Your task to perform on an android device: turn on location history Image 0: 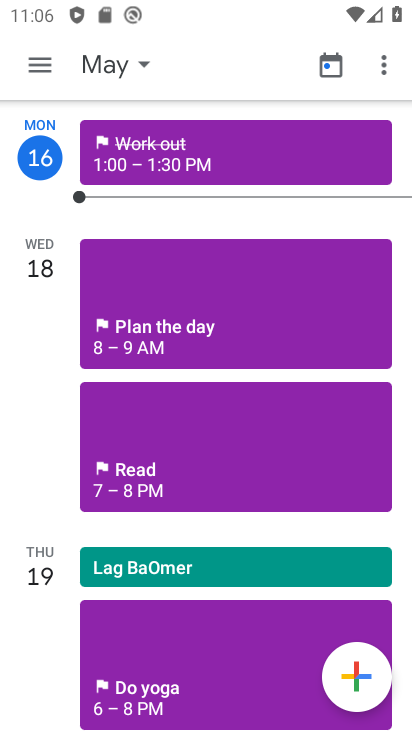
Step 0: drag from (327, 617) to (329, 580)
Your task to perform on an android device: turn on location history Image 1: 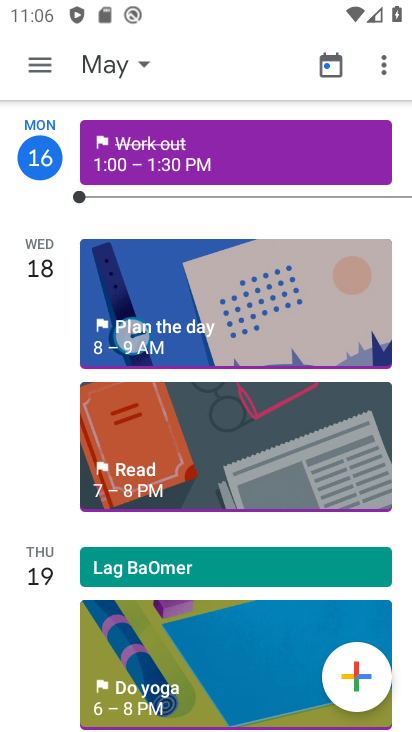
Step 1: press home button
Your task to perform on an android device: turn on location history Image 2: 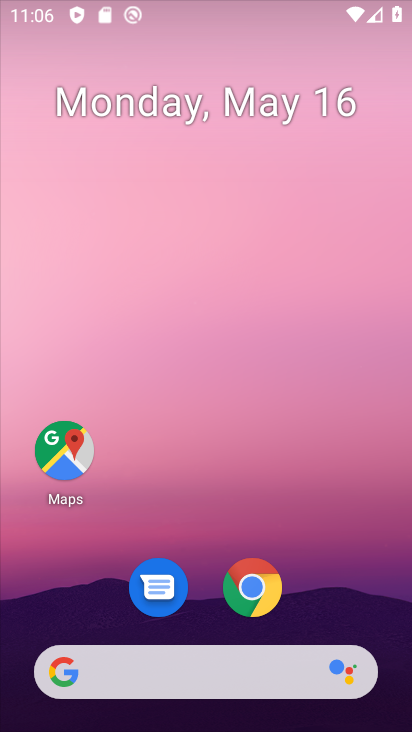
Step 2: drag from (251, 555) to (272, 264)
Your task to perform on an android device: turn on location history Image 3: 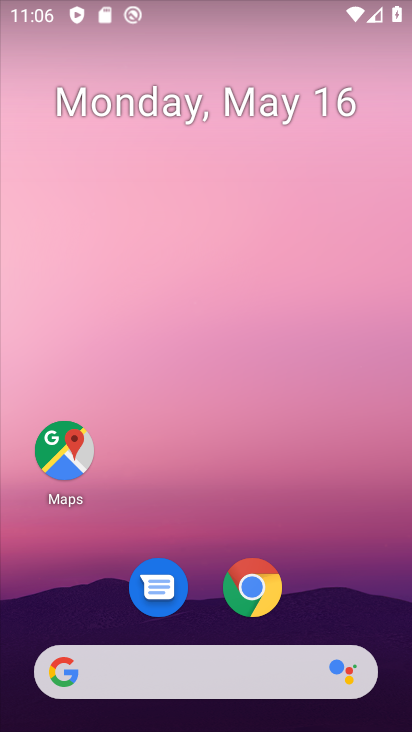
Step 3: drag from (175, 614) to (271, 214)
Your task to perform on an android device: turn on location history Image 4: 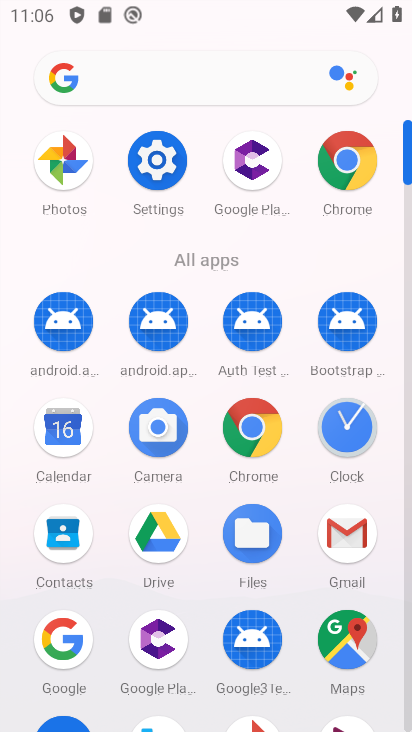
Step 4: click (151, 156)
Your task to perform on an android device: turn on location history Image 5: 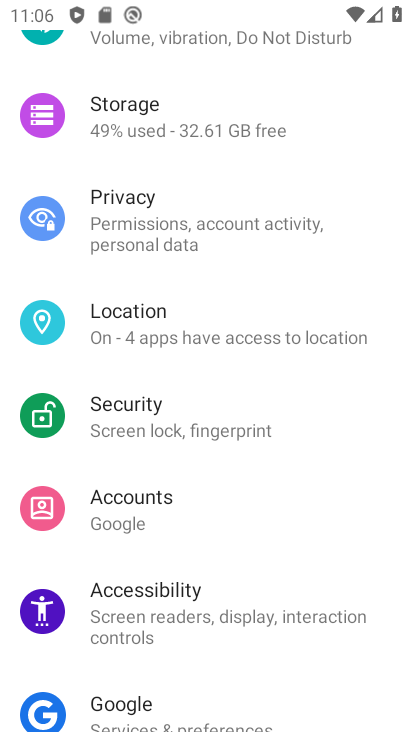
Step 5: click (137, 311)
Your task to perform on an android device: turn on location history Image 6: 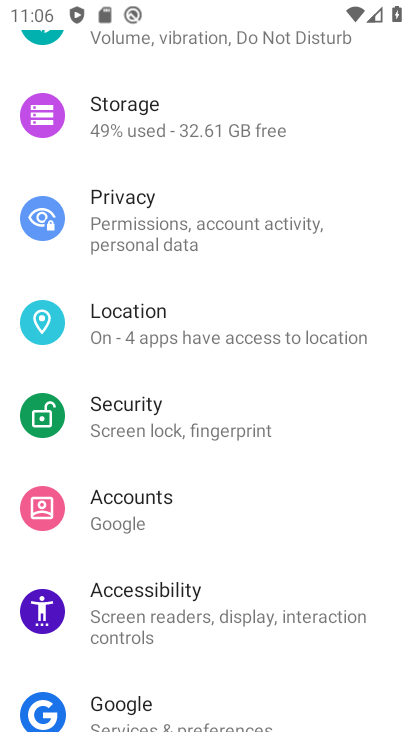
Step 6: click (141, 315)
Your task to perform on an android device: turn on location history Image 7: 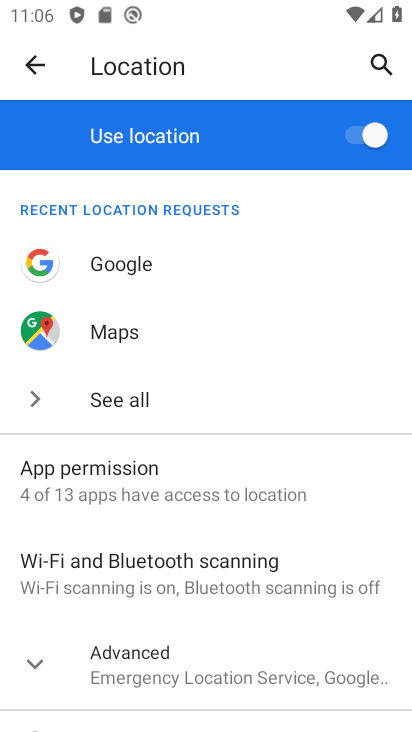
Step 7: drag from (207, 559) to (263, 344)
Your task to perform on an android device: turn on location history Image 8: 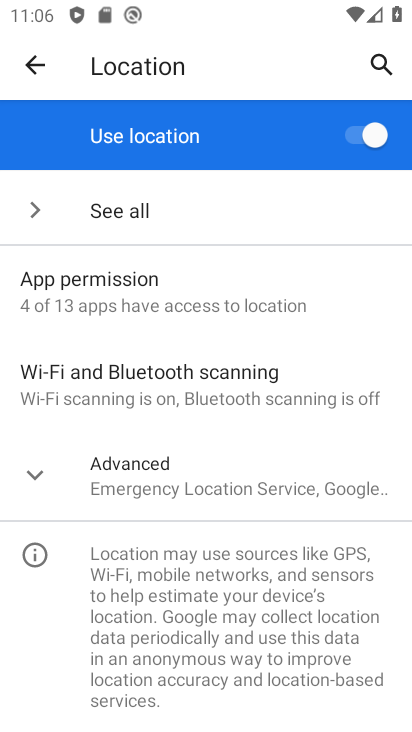
Step 8: click (189, 461)
Your task to perform on an android device: turn on location history Image 9: 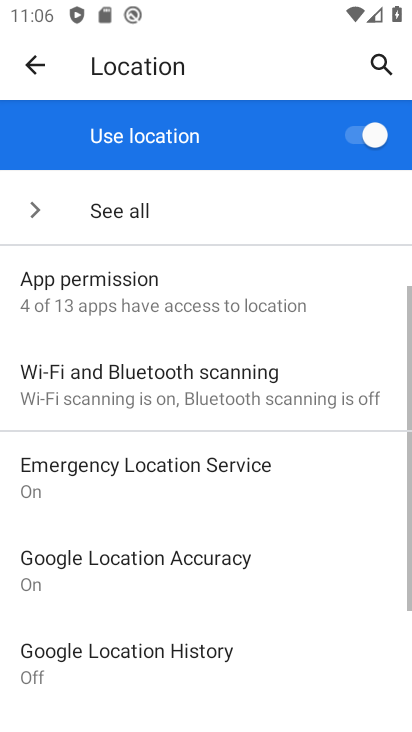
Step 9: drag from (245, 635) to (320, 352)
Your task to perform on an android device: turn on location history Image 10: 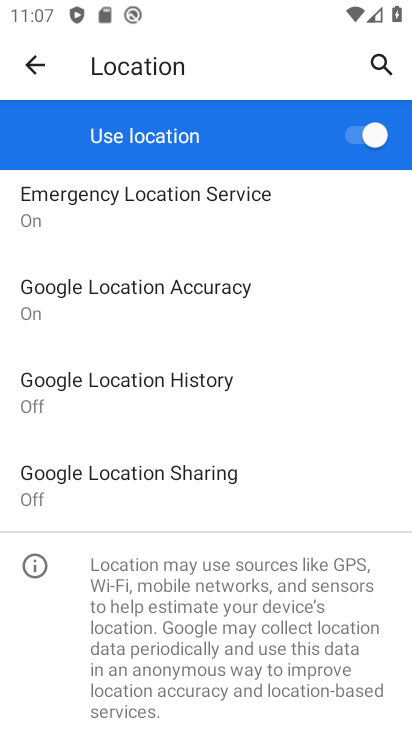
Step 10: click (197, 391)
Your task to perform on an android device: turn on location history Image 11: 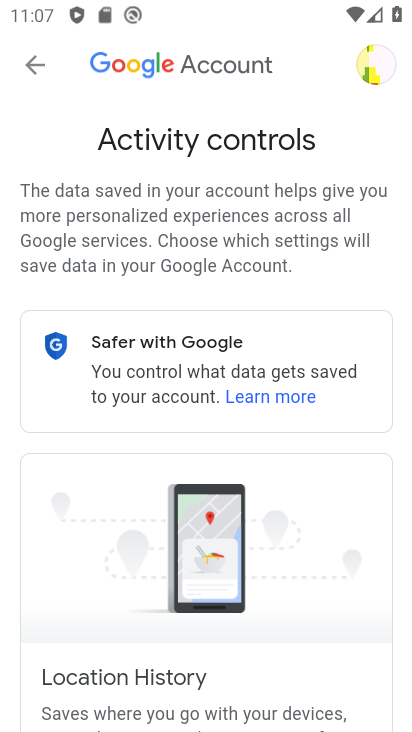
Step 11: drag from (251, 595) to (311, 241)
Your task to perform on an android device: turn on location history Image 12: 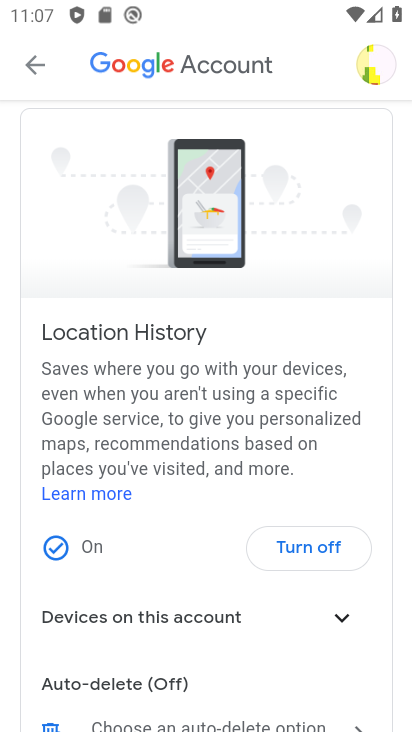
Step 12: click (318, 541)
Your task to perform on an android device: turn on location history Image 13: 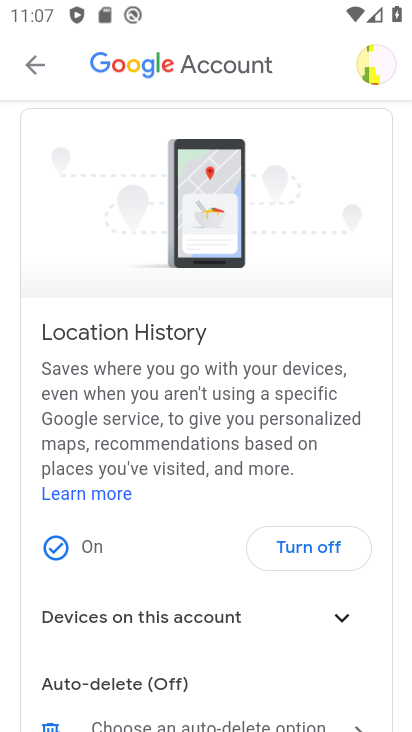
Step 13: click (318, 541)
Your task to perform on an android device: turn on location history Image 14: 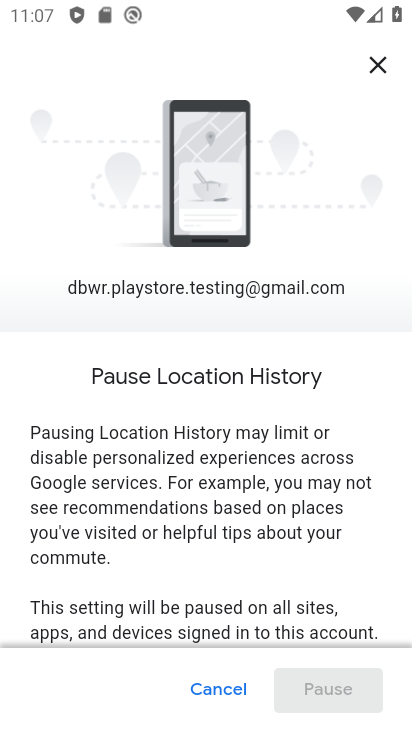
Step 14: task complete